Your task to perform on an android device: choose inbox layout in the gmail app Image 0: 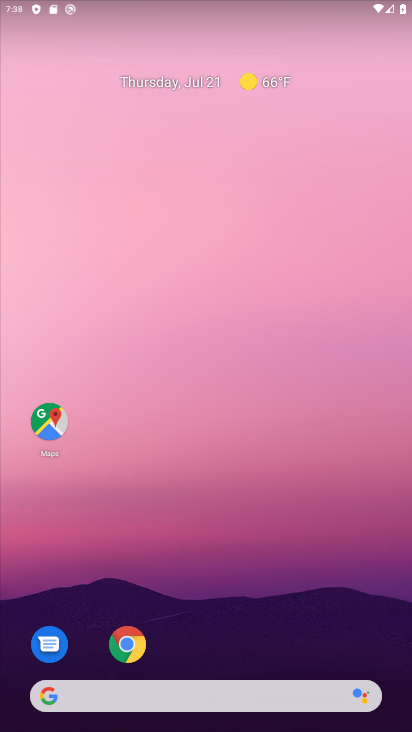
Step 0: drag from (122, 537) to (47, 240)
Your task to perform on an android device: choose inbox layout in the gmail app Image 1: 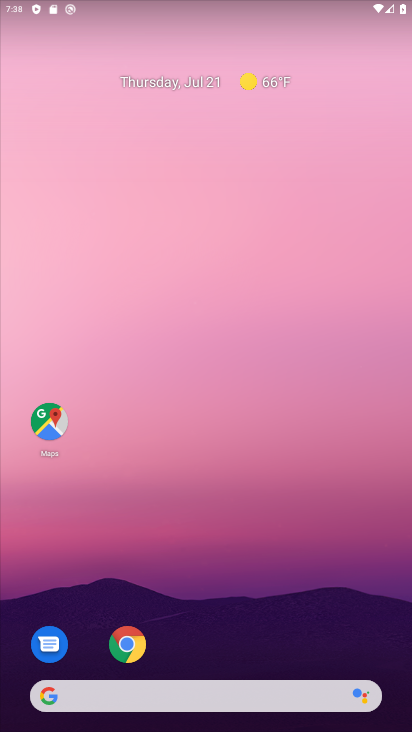
Step 1: drag from (169, 477) to (116, 222)
Your task to perform on an android device: choose inbox layout in the gmail app Image 2: 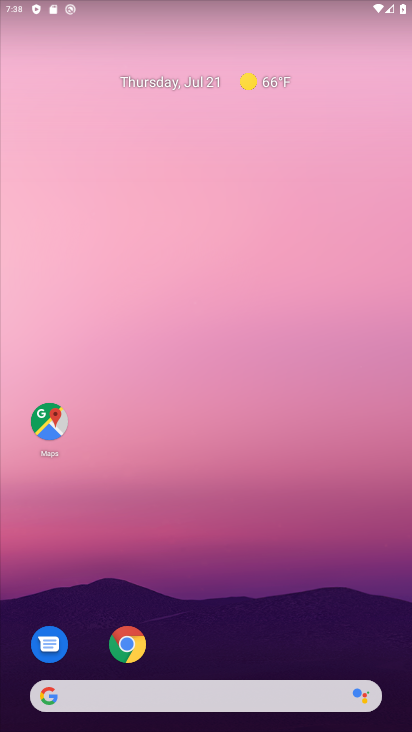
Step 2: drag from (260, 615) to (173, 215)
Your task to perform on an android device: choose inbox layout in the gmail app Image 3: 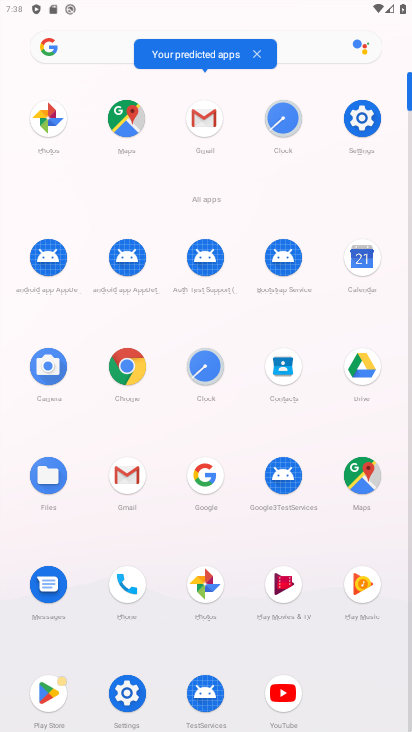
Step 3: click (116, 467)
Your task to perform on an android device: choose inbox layout in the gmail app Image 4: 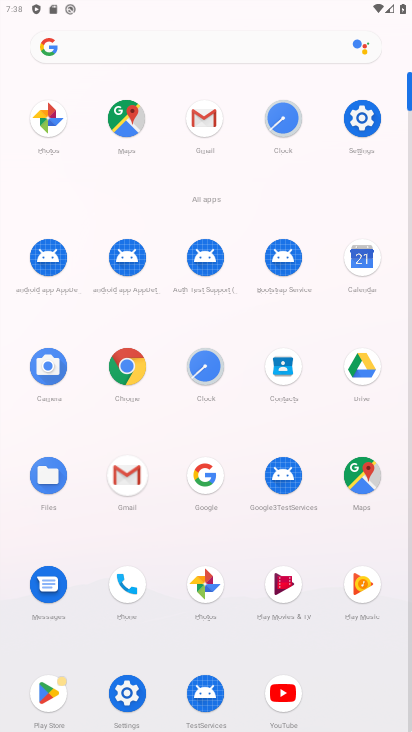
Step 4: click (123, 469)
Your task to perform on an android device: choose inbox layout in the gmail app Image 5: 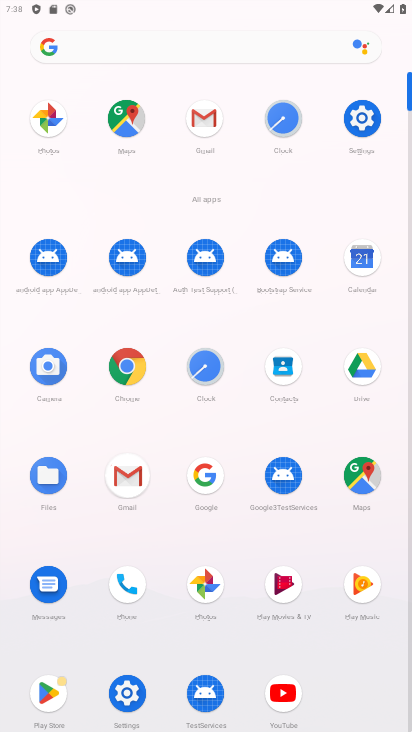
Step 5: click (125, 470)
Your task to perform on an android device: choose inbox layout in the gmail app Image 6: 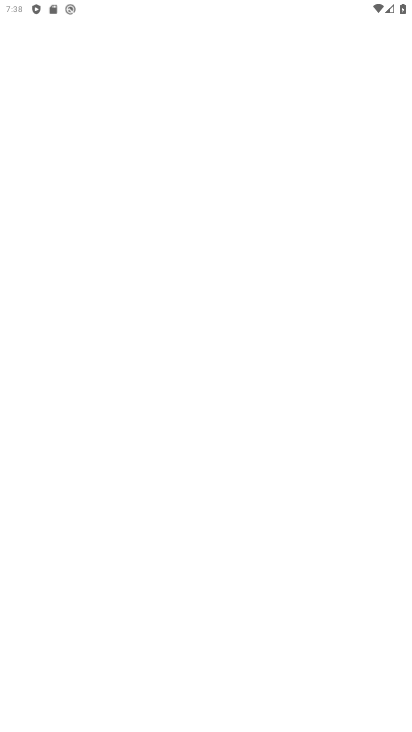
Step 6: click (134, 485)
Your task to perform on an android device: choose inbox layout in the gmail app Image 7: 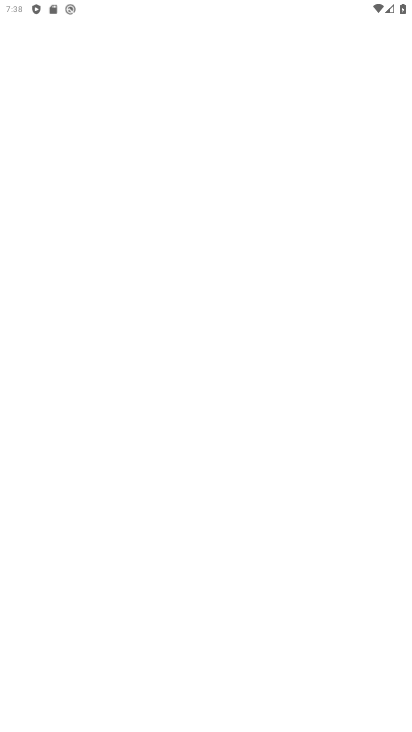
Step 7: click (137, 453)
Your task to perform on an android device: choose inbox layout in the gmail app Image 8: 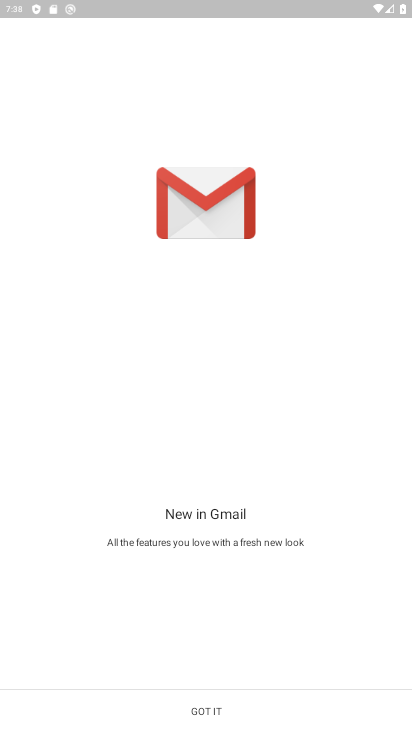
Step 8: click (216, 714)
Your task to perform on an android device: choose inbox layout in the gmail app Image 9: 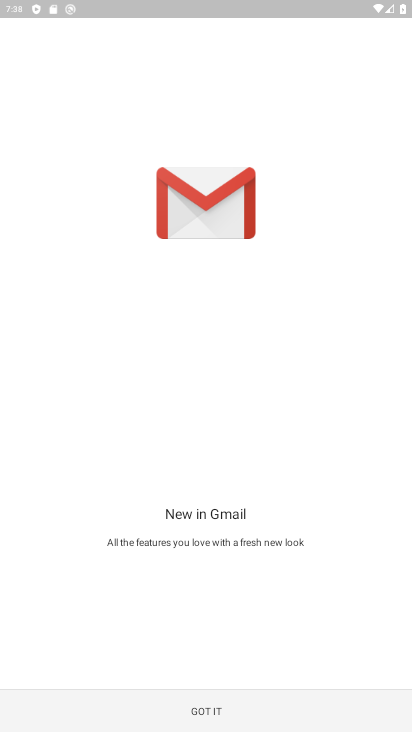
Step 9: click (222, 697)
Your task to perform on an android device: choose inbox layout in the gmail app Image 10: 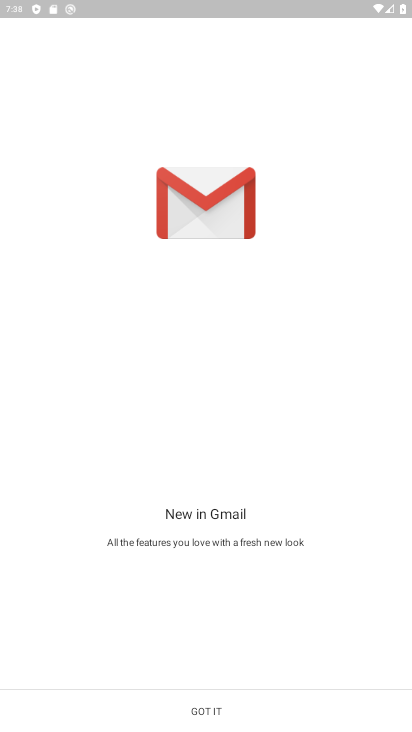
Step 10: click (224, 704)
Your task to perform on an android device: choose inbox layout in the gmail app Image 11: 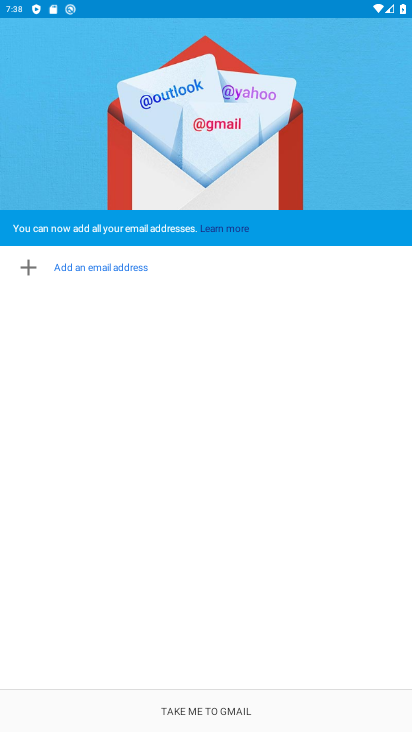
Step 11: click (230, 701)
Your task to perform on an android device: choose inbox layout in the gmail app Image 12: 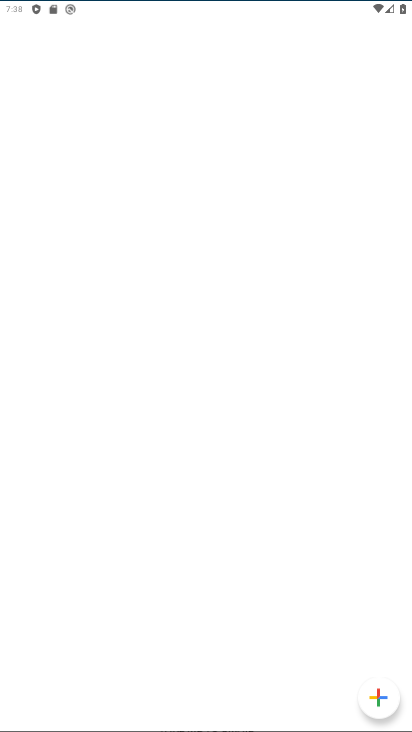
Step 12: click (211, 717)
Your task to perform on an android device: choose inbox layout in the gmail app Image 13: 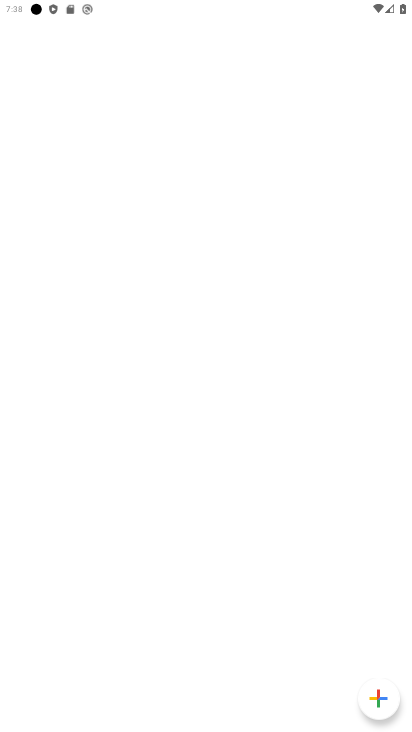
Step 13: click (211, 718)
Your task to perform on an android device: choose inbox layout in the gmail app Image 14: 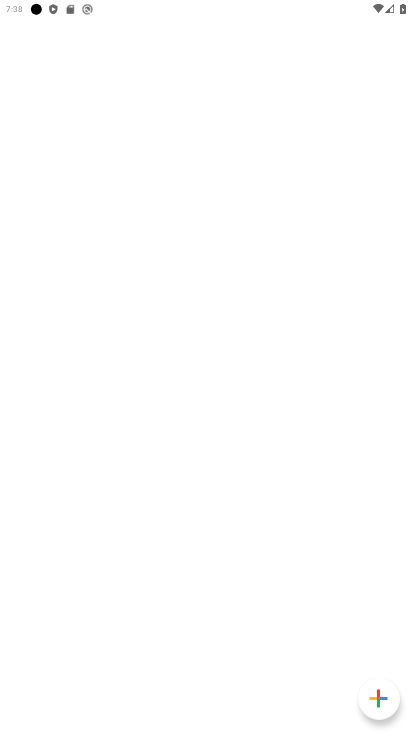
Step 14: click (209, 719)
Your task to perform on an android device: choose inbox layout in the gmail app Image 15: 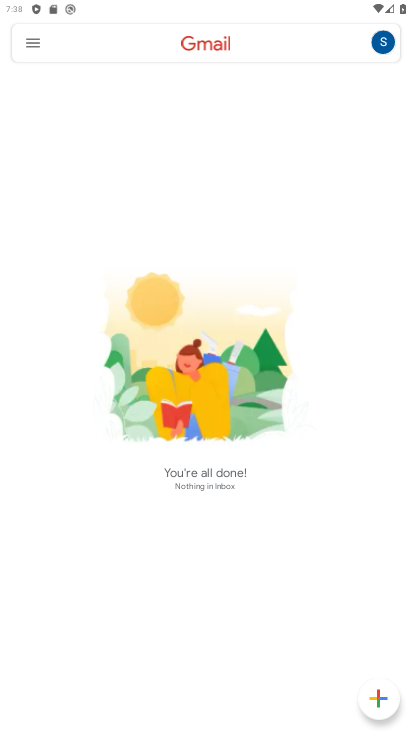
Step 15: drag from (33, 44) to (93, 399)
Your task to perform on an android device: choose inbox layout in the gmail app Image 16: 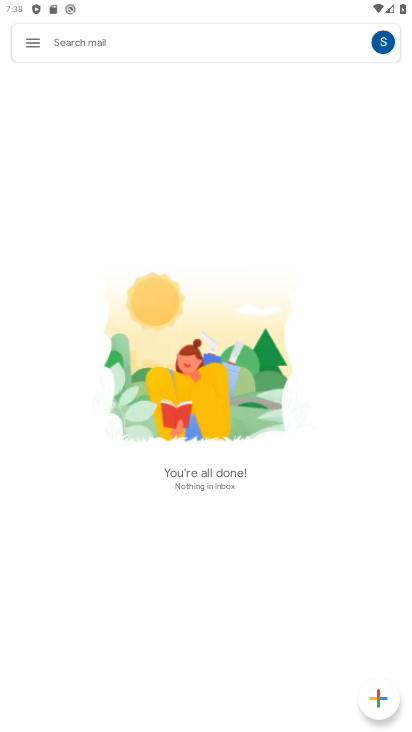
Step 16: drag from (39, 43) to (131, 405)
Your task to perform on an android device: choose inbox layout in the gmail app Image 17: 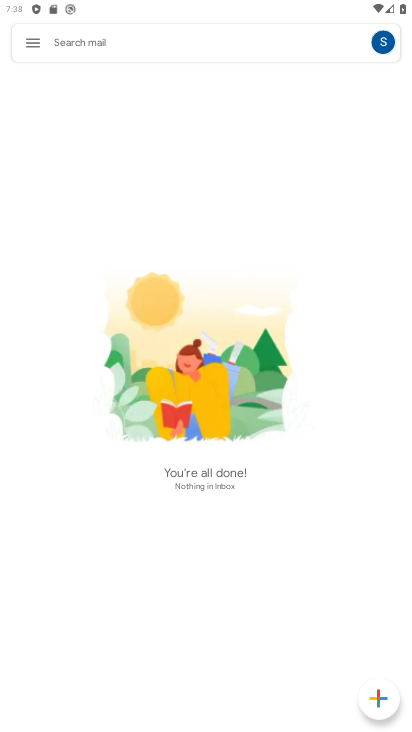
Step 17: click (36, 50)
Your task to perform on an android device: choose inbox layout in the gmail app Image 18: 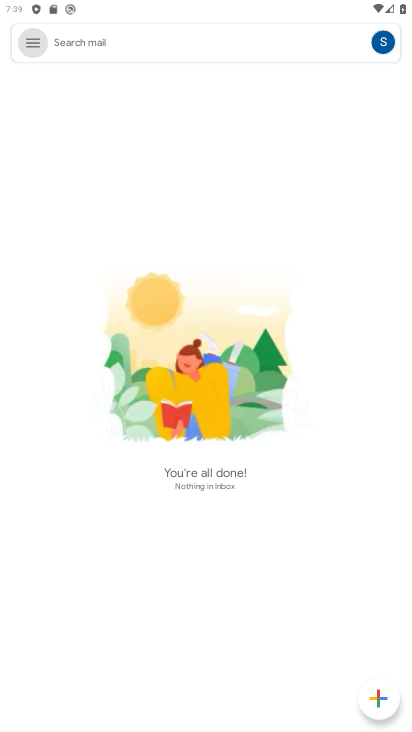
Step 18: click (32, 46)
Your task to perform on an android device: choose inbox layout in the gmail app Image 19: 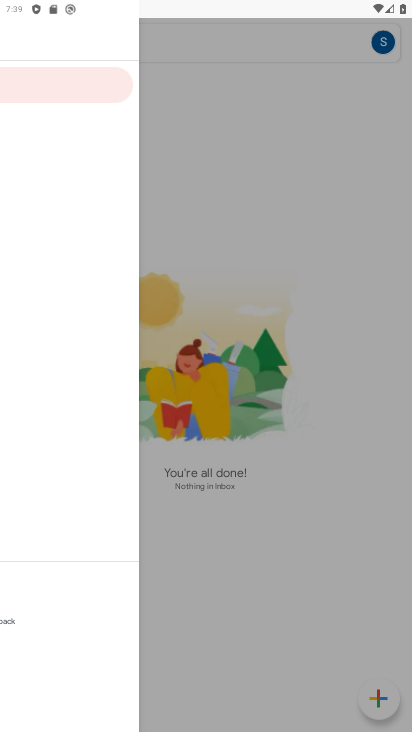
Step 19: click (28, 49)
Your task to perform on an android device: choose inbox layout in the gmail app Image 20: 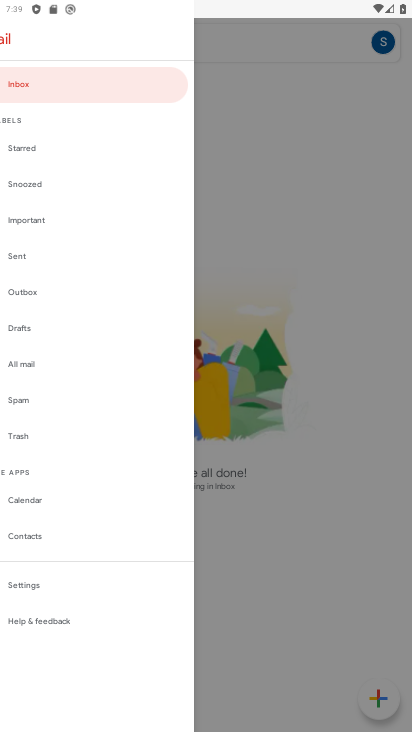
Step 20: click (29, 49)
Your task to perform on an android device: choose inbox layout in the gmail app Image 21: 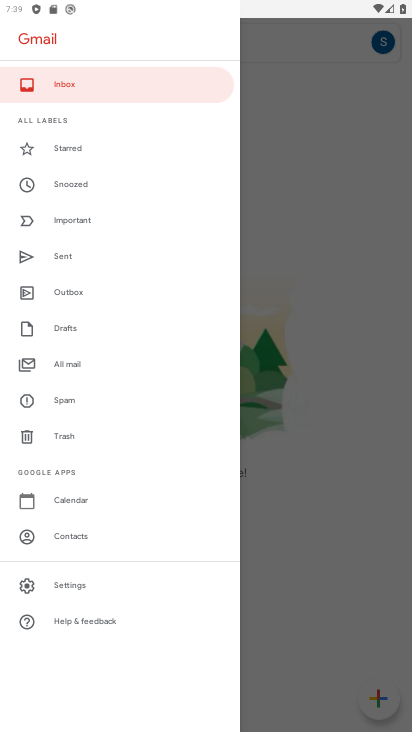
Step 21: click (68, 576)
Your task to perform on an android device: choose inbox layout in the gmail app Image 22: 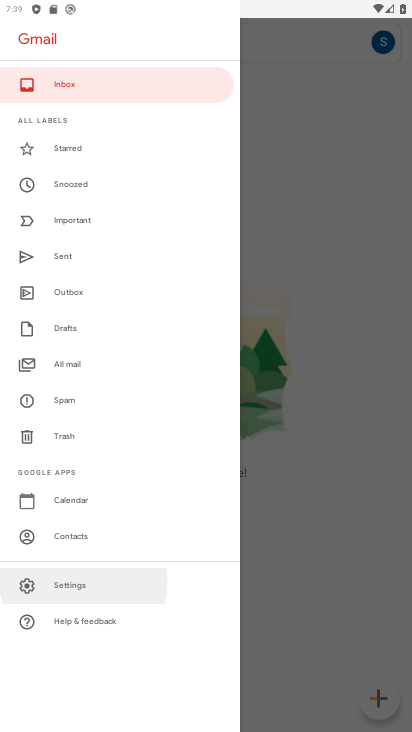
Step 22: click (68, 576)
Your task to perform on an android device: choose inbox layout in the gmail app Image 23: 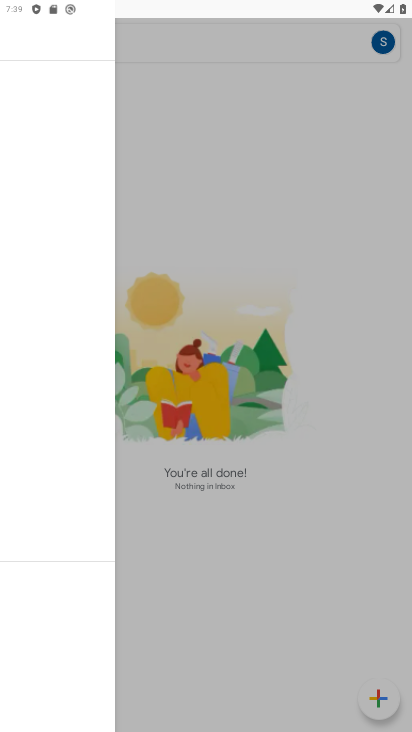
Step 23: click (67, 583)
Your task to perform on an android device: choose inbox layout in the gmail app Image 24: 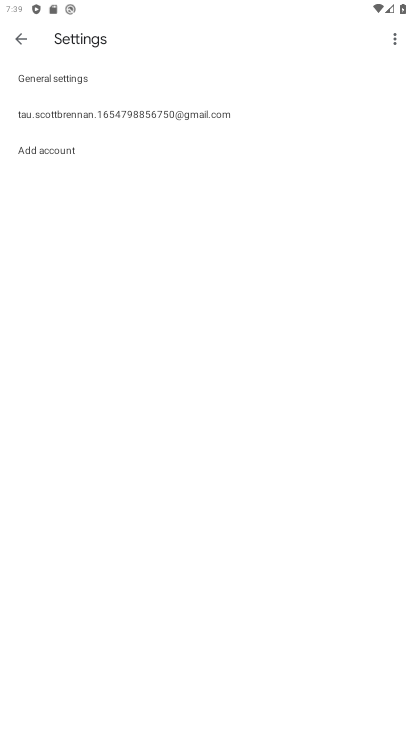
Step 24: click (66, 116)
Your task to perform on an android device: choose inbox layout in the gmail app Image 25: 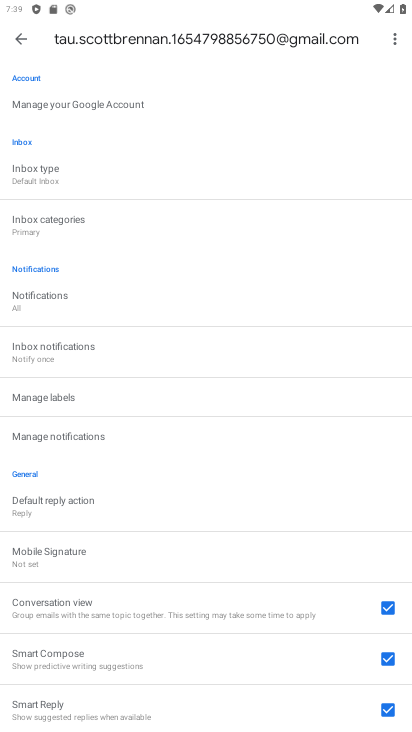
Step 25: task complete